Your task to perform on an android device: Open Maps and search for coffee Image 0: 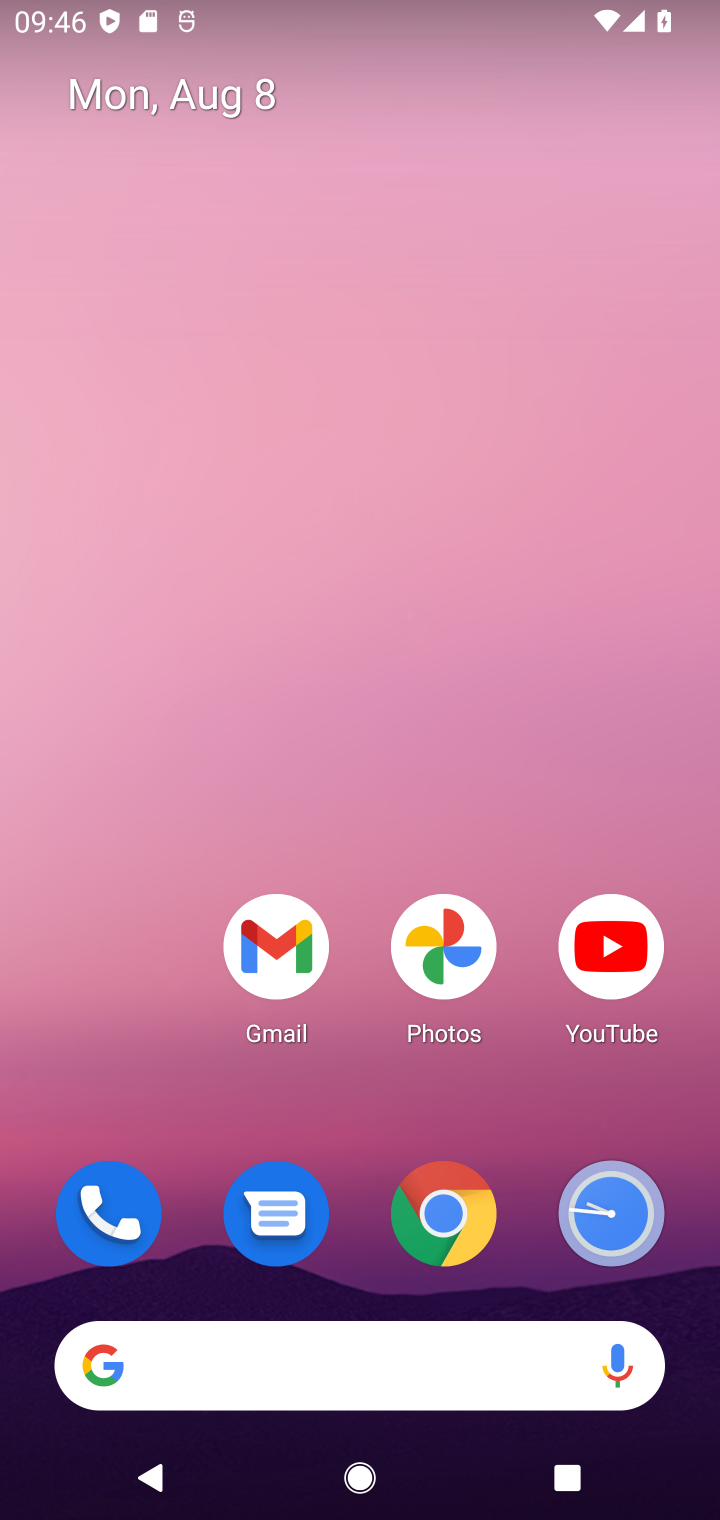
Step 0: drag from (341, 1074) to (370, 404)
Your task to perform on an android device: Open Maps and search for coffee Image 1: 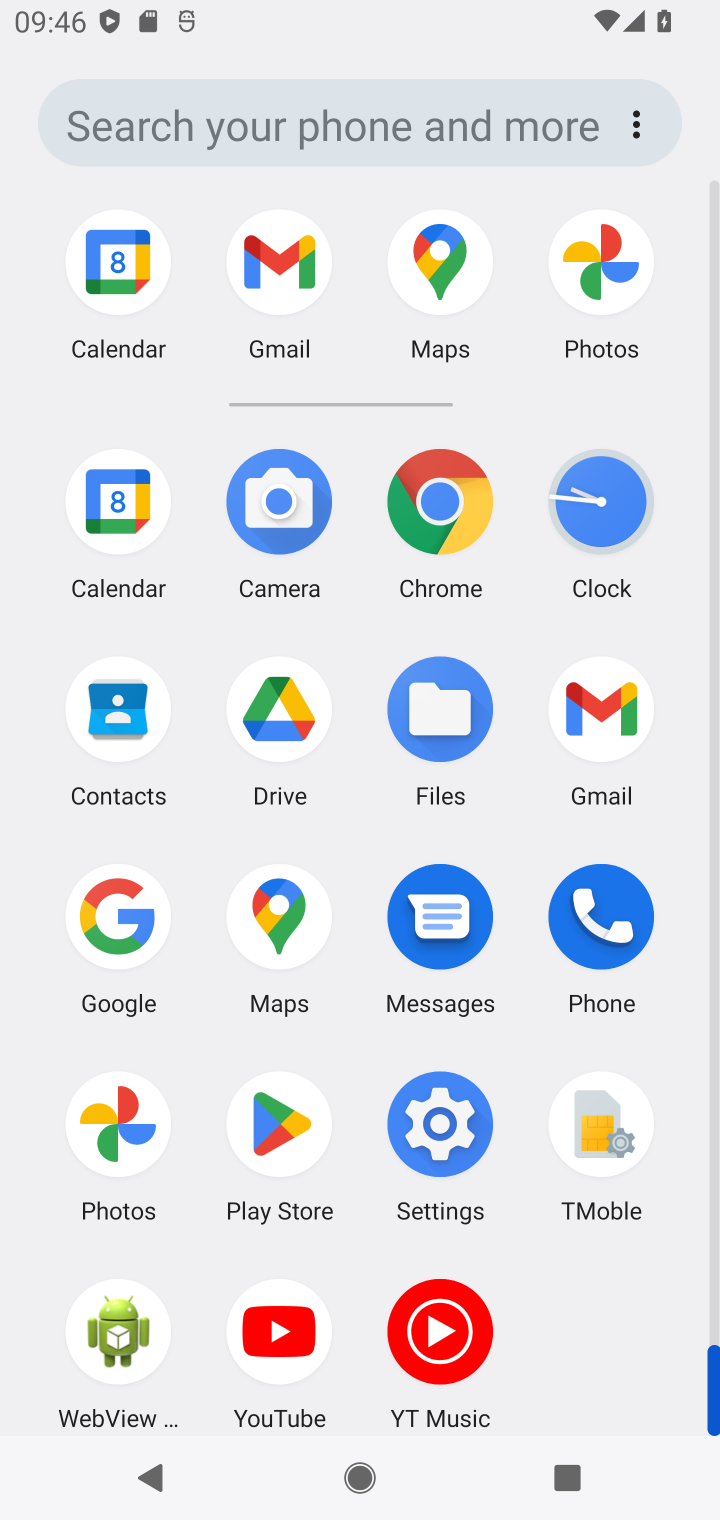
Step 1: click (288, 923)
Your task to perform on an android device: Open Maps and search for coffee Image 2: 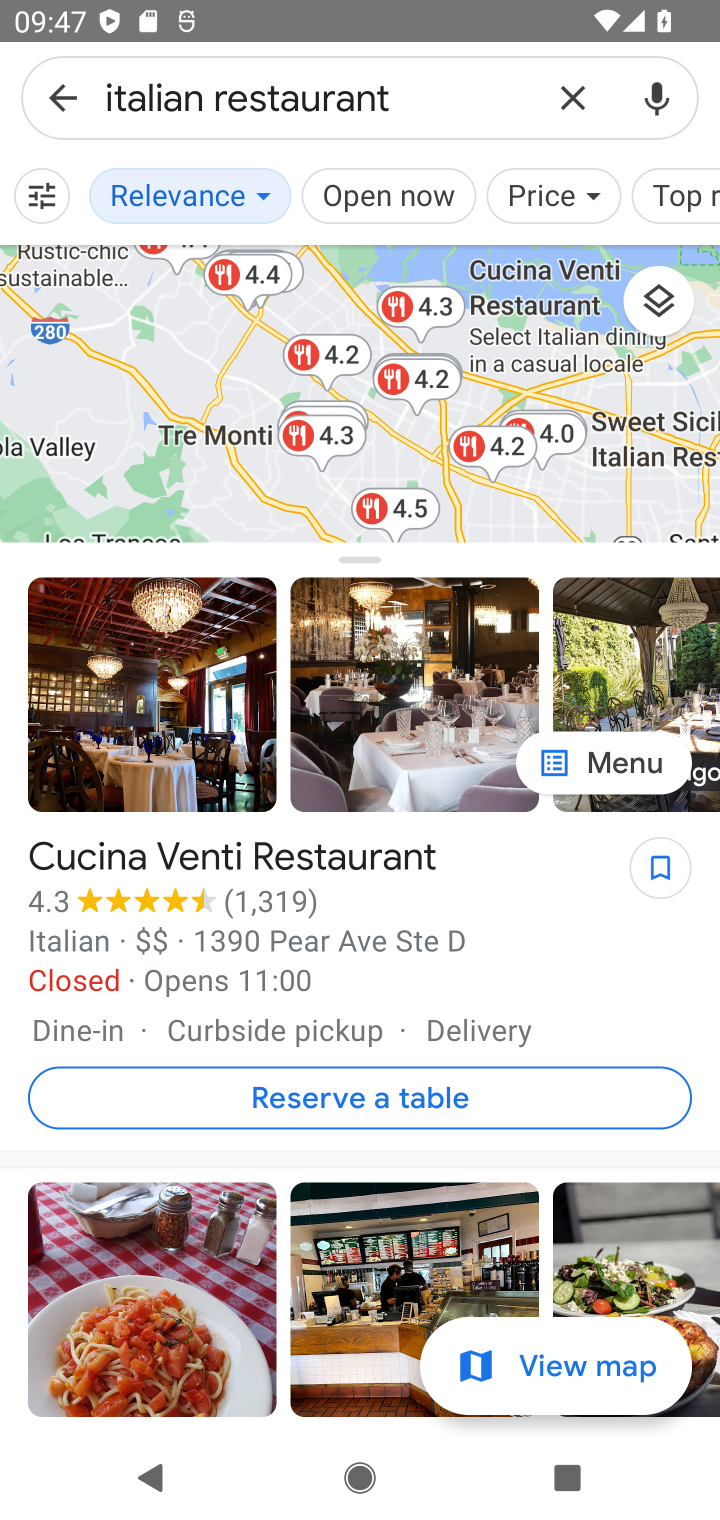
Step 2: click (579, 102)
Your task to perform on an android device: Open Maps and search for coffee Image 3: 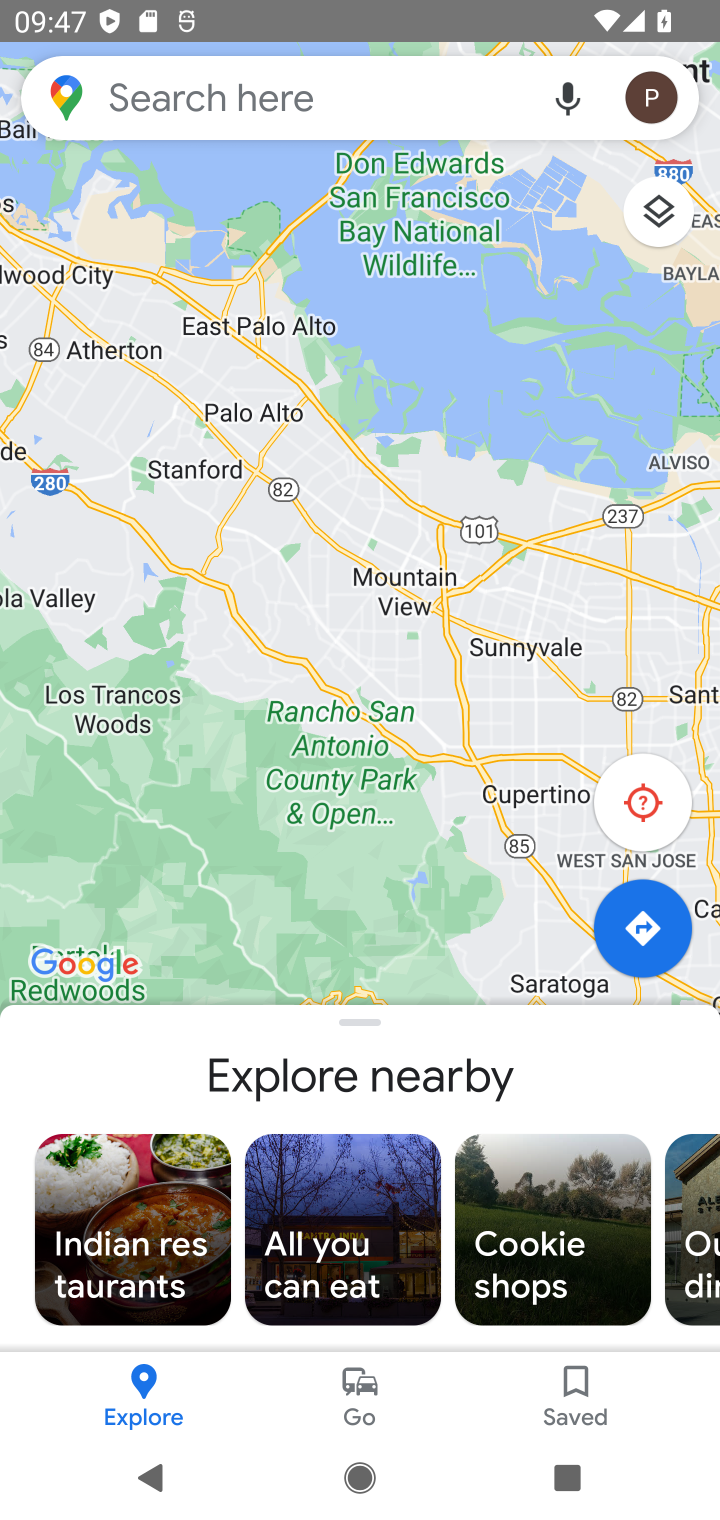
Step 3: click (284, 124)
Your task to perform on an android device: Open Maps and search for coffee Image 4: 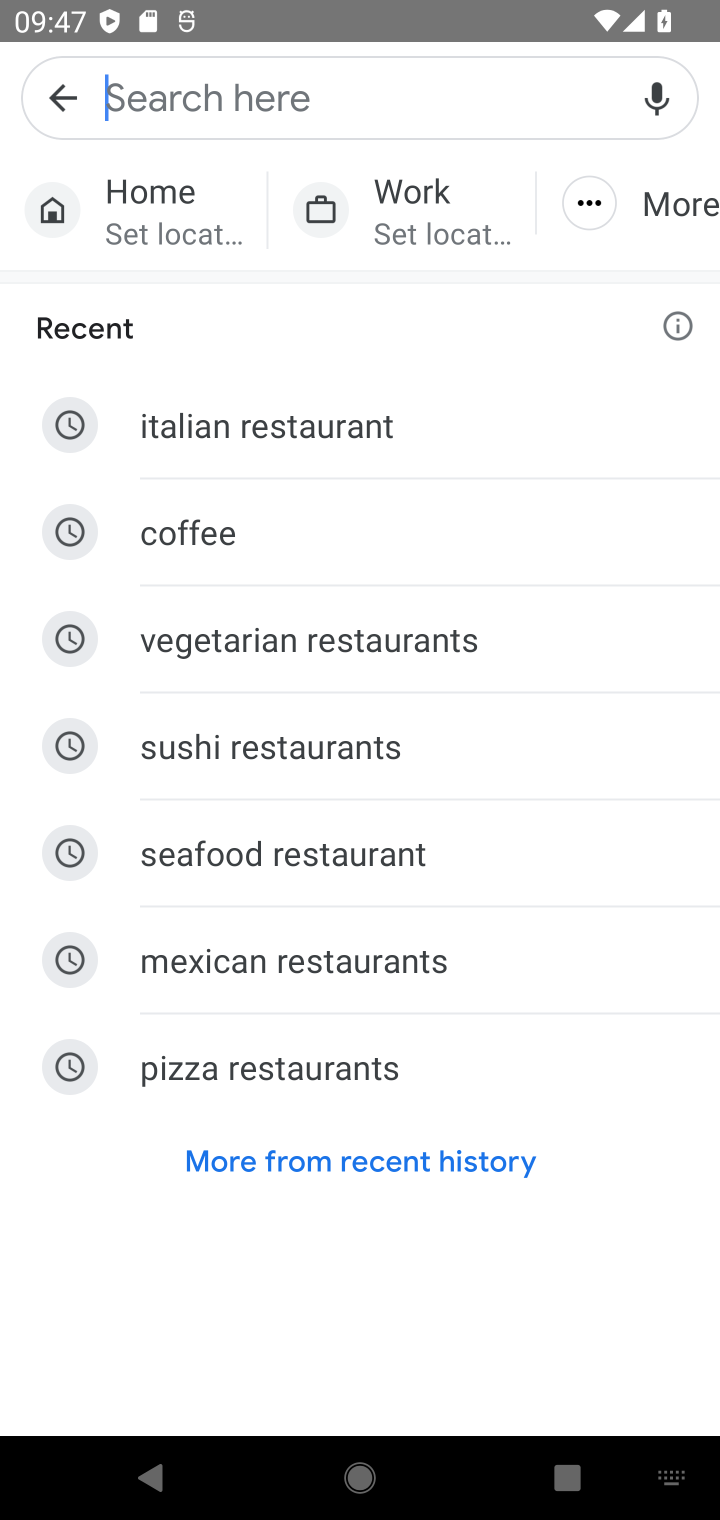
Step 4: click (149, 561)
Your task to perform on an android device: Open Maps and search for coffee Image 5: 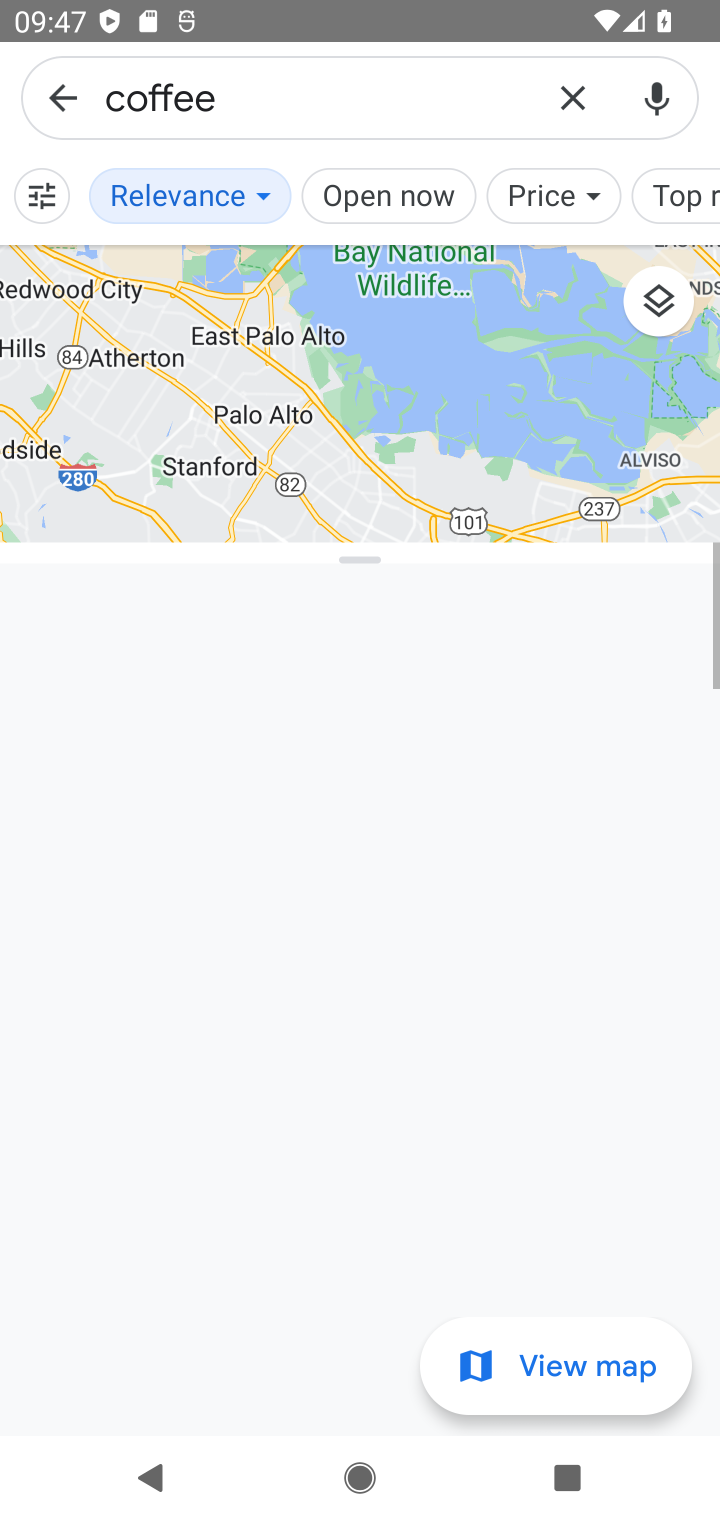
Step 5: task complete